Your task to perform on an android device: What's the weather going to be this weekend? Image 0: 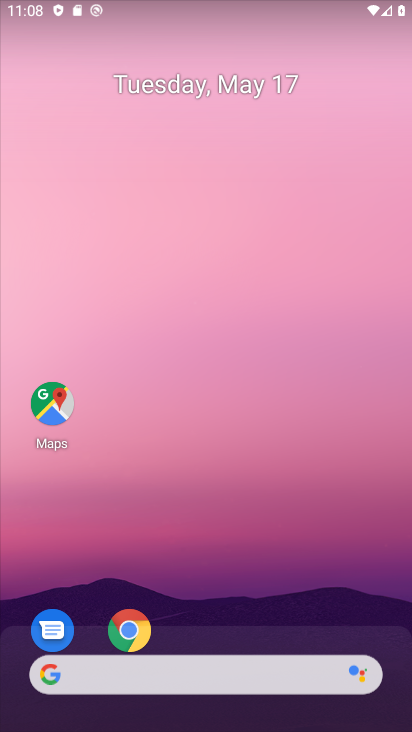
Step 0: drag from (8, 329) to (393, 283)
Your task to perform on an android device: What's the weather going to be this weekend? Image 1: 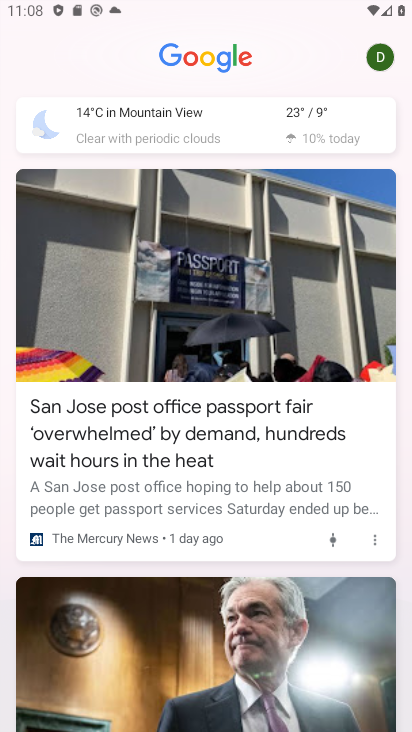
Step 1: click (274, 121)
Your task to perform on an android device: What's the weather going to be this weekend? Image 2: 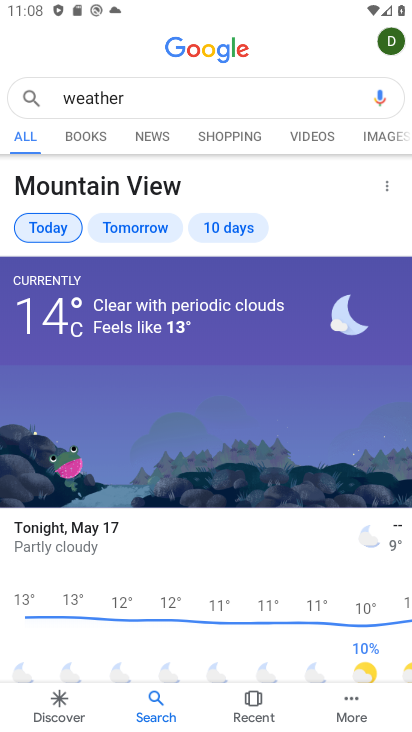
Step 2: click (235, 246)
Your task to perform on an android device: What's the weather going to be this weekend? Image 3: 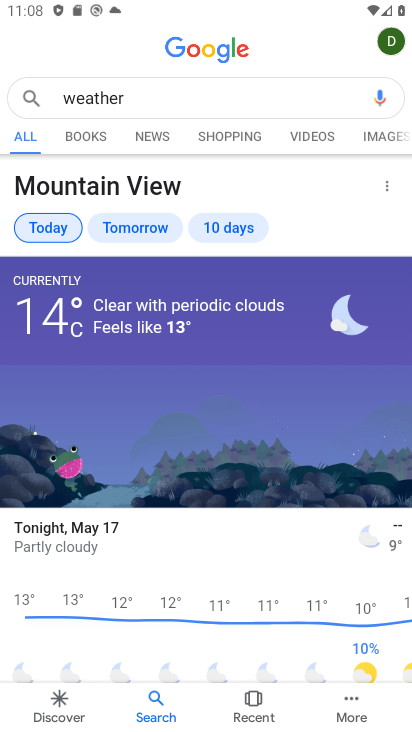
Step 3: click (238, 420)
Your task to perform on an android device: What's the weather going to be this weekend? Image 4: 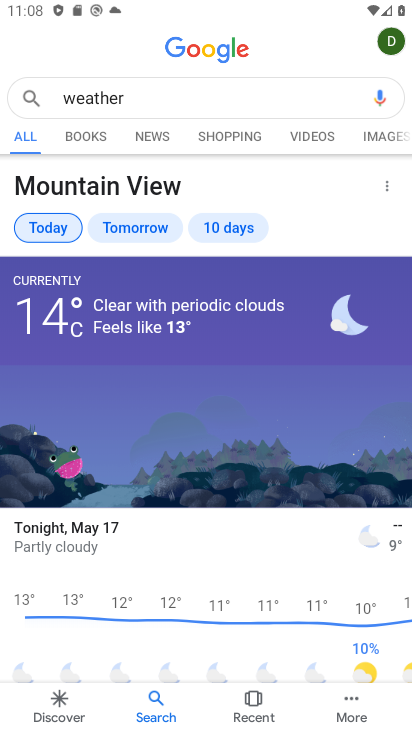
Step 4: drag from (183, 618) to (334, 237)
Your task to perform on an android device: What's the weather going to be this weekend? Image 5: 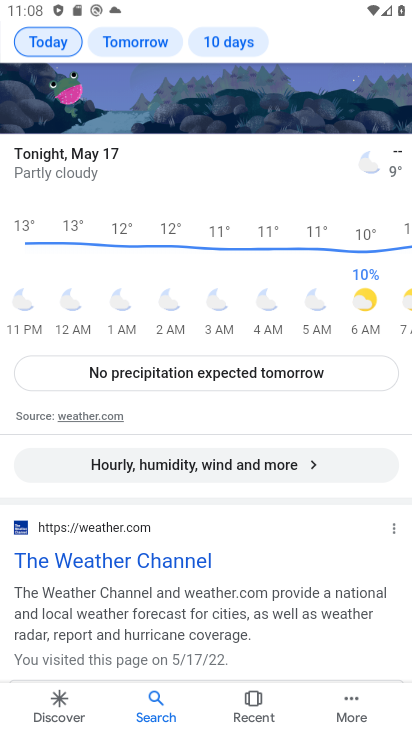
Step 5: click (184, 571)
Your task to perform on an android device: What's the weather going to be this weekend? Image 6: 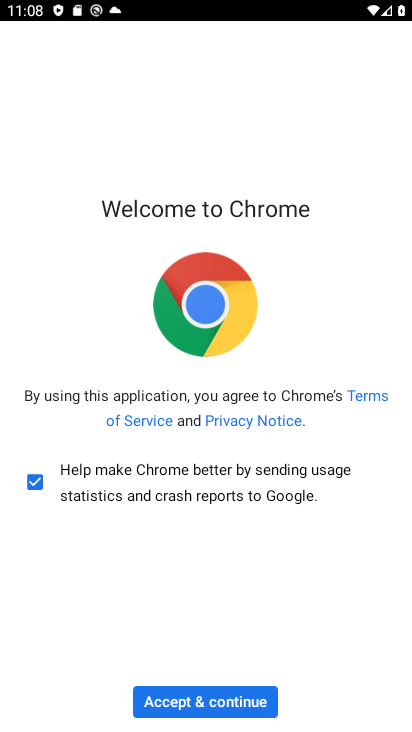
Step 6: click (217, 705)
Your task to perform on an android device: What's the weather going to be this weekend? Image 7: 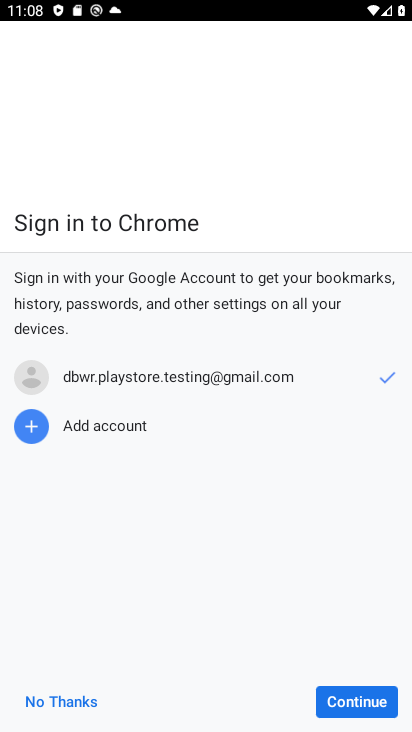
Step 7: click (341, 712)
Your task to perform on an android device: What's the weather going to be this weekend? Image 8: 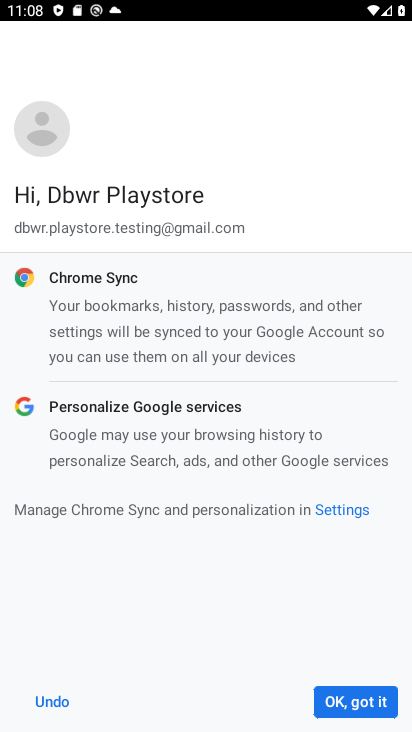
Step 8: click (341, 712)
Your task to perform on an android device: What's the weather going to be this weekend? Image 9: 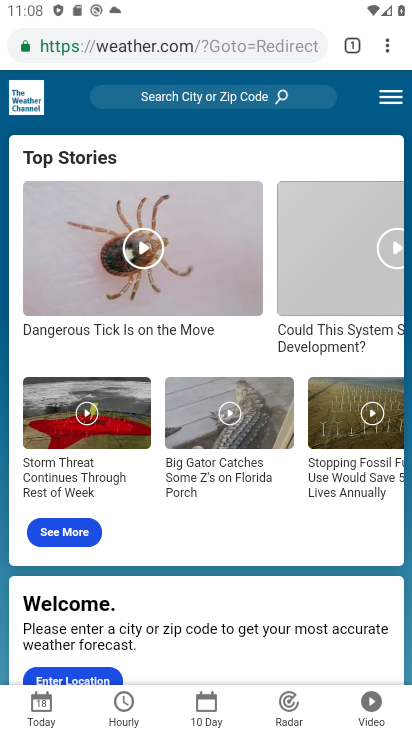
Step 9: click (216, 715)
Your task to perform on an android device: What's the weather going to be this weekend? Image 10: 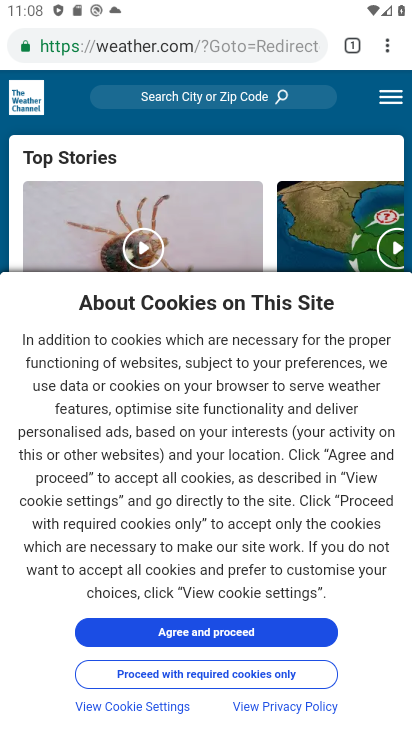
Step 10: click (227, 617)
Your task to perform on an android device: What's the weather going to be this weekend? Image 11: 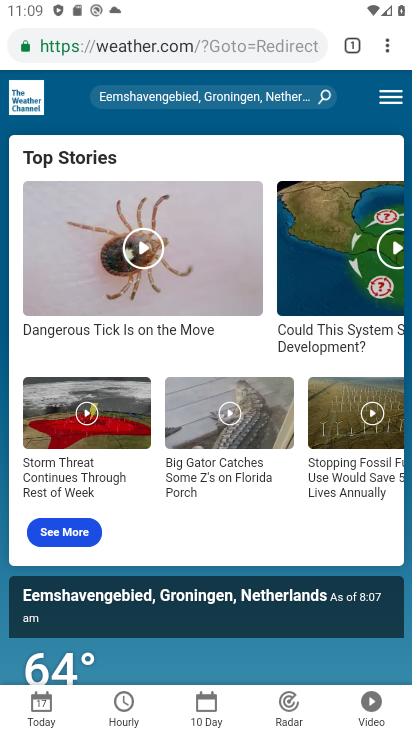
Step 11: click (211, 704)
Your task to perform on an android device: What's the weather going to be this weekend? Image 12: 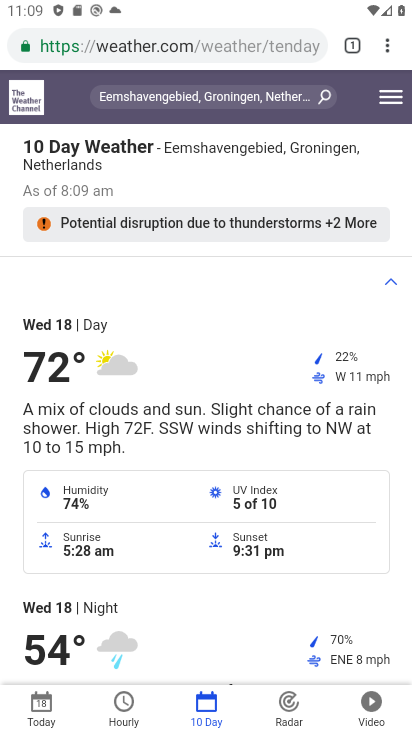
Step 12: click (208, 715)
Your task to perform on an android device: What's the weather going to be this weekend? Image 13: 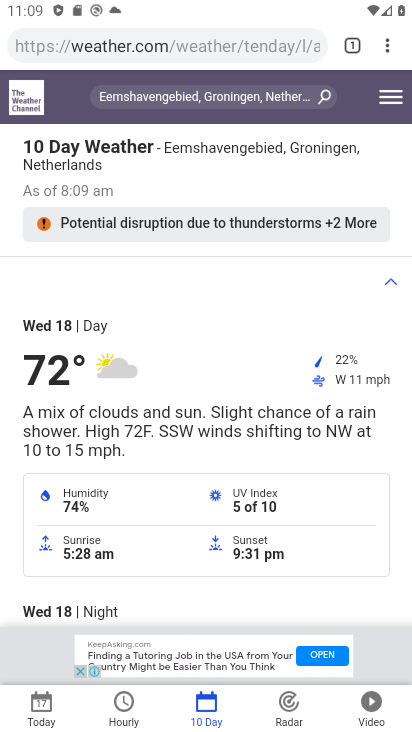
Step 13: task complete